Your task to perform on an android device: Open Chrome and go to settings Image 0: 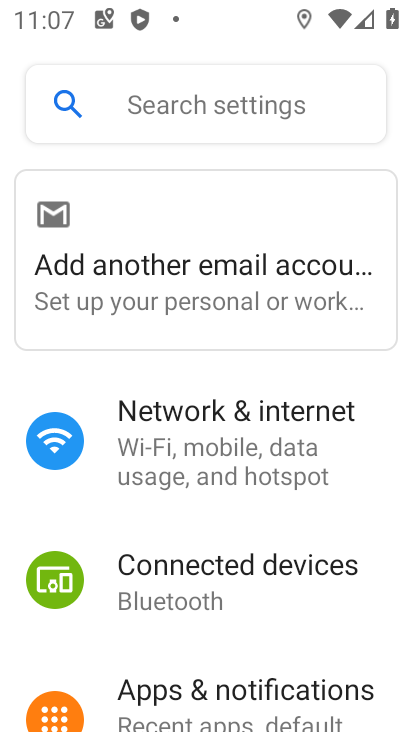
Step 0: press home button
Your task to perform on an android device: Open Chrome and go to settings Image 1: 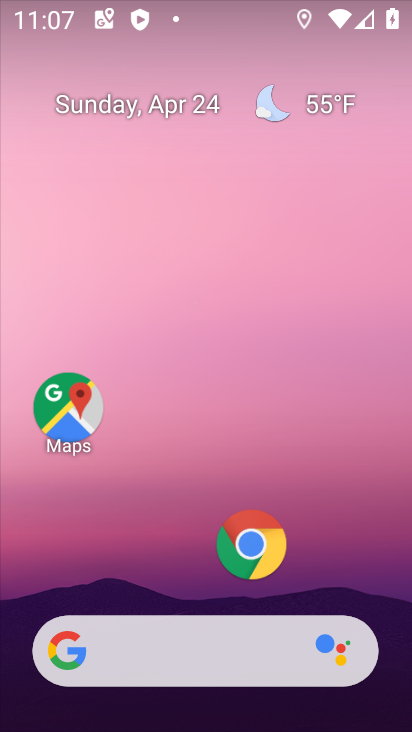
Step 1: click (271, 544)
Your task to perform on an android device: Open Chrome and go to settings Image 2: 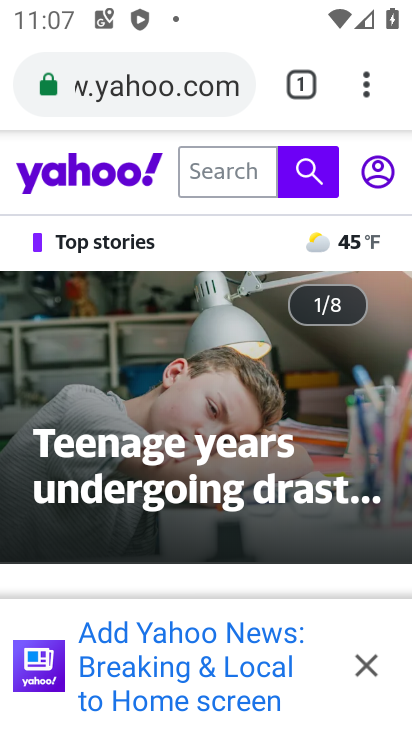
Step 2: task complete